Your task to perform on an android device: all mails in gmail Image 0: 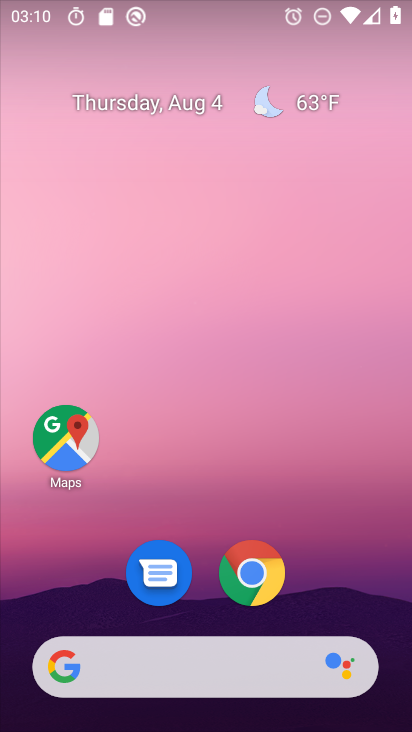
Step 0: drag from (335, 550) to (313, 65)
Your task to perform on an android device: all mails in gmail Image 1: 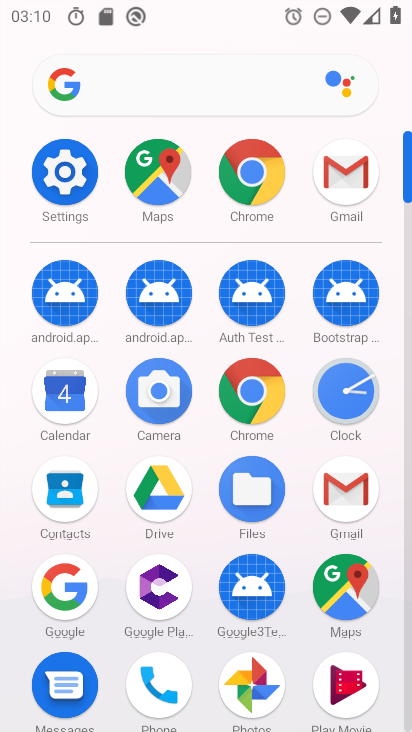
Step 1: click (342, 184)
Your task to perform on an android device: all mails in gmail Image 2: 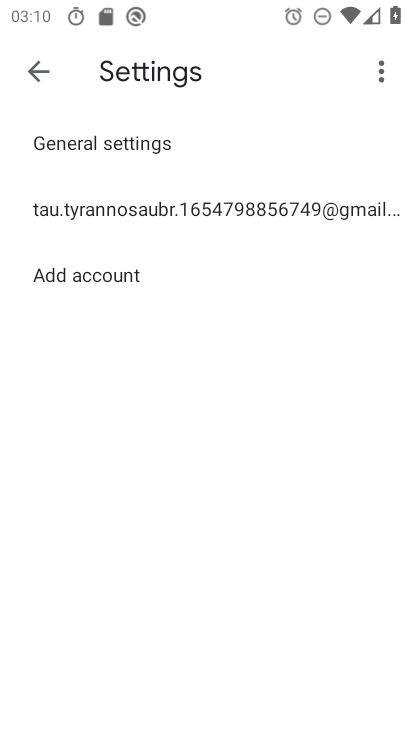
Step 2: press back button
Your task to perform on an android device: all mails in gmail Image 3: 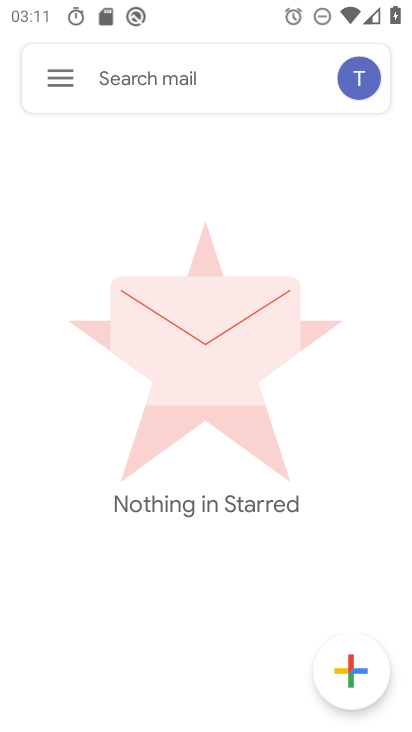
Step 3: click (55, 76)
Your task to perform on an android device: all mails in gmail Image 4: 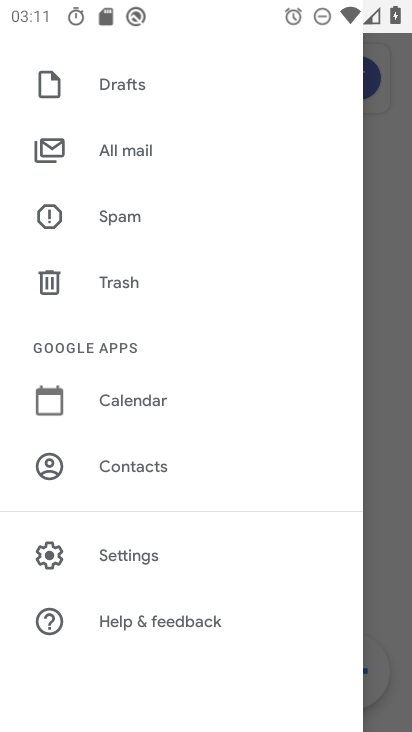
Step 4: click (129, 167)
Your task to perform on an android device: all mails in gmail Image 5: 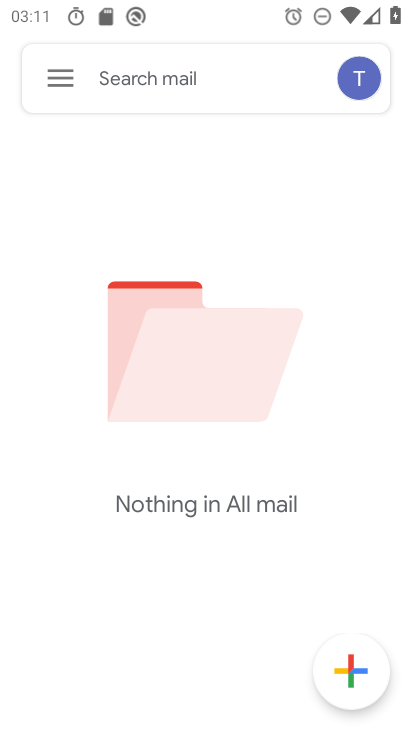
Step 5: task complete